Your task to perform on an android device: open app "Messenger Lite" (install if not already installed) Image 0: 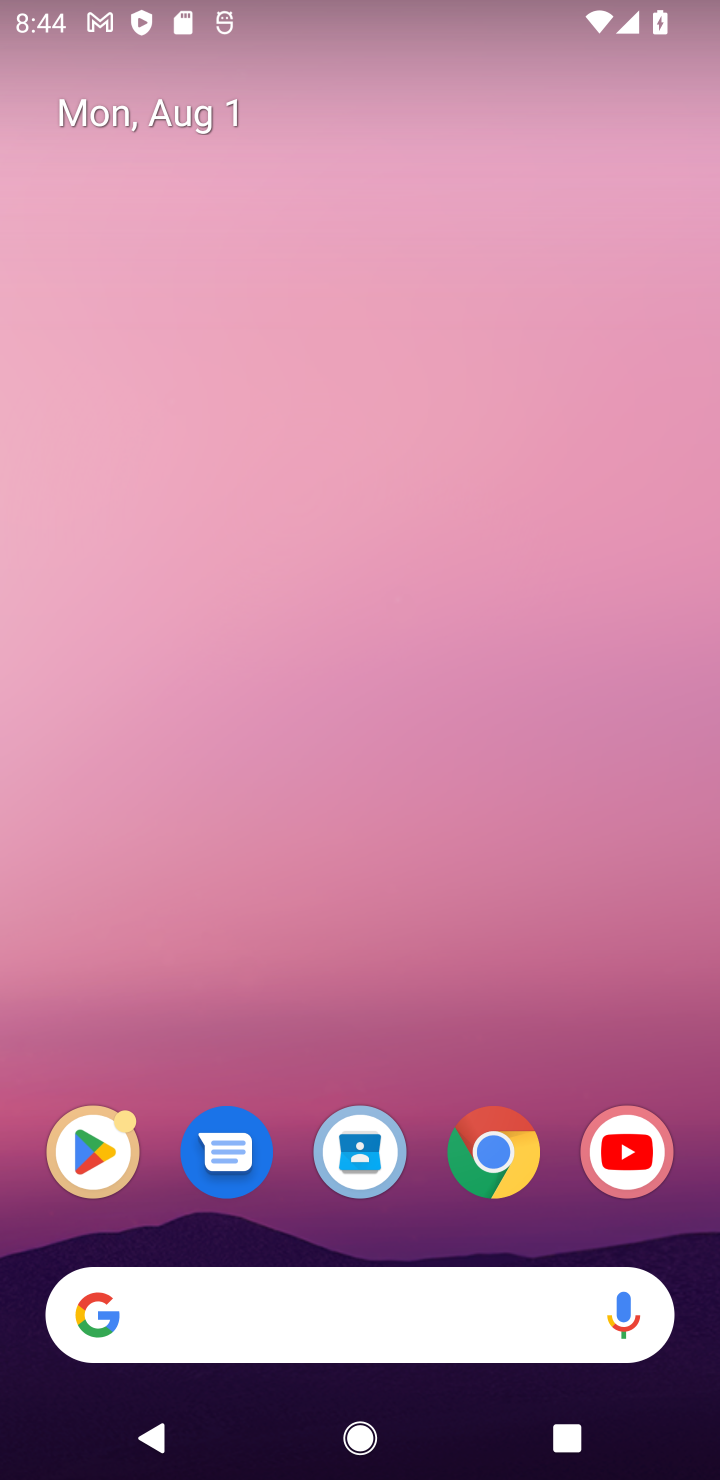
Step 0: drag from (372, 1250) to (286, 243)
Your task to perform on an android device: open app "Messenger Lite" (install if not already installed) Image 1: 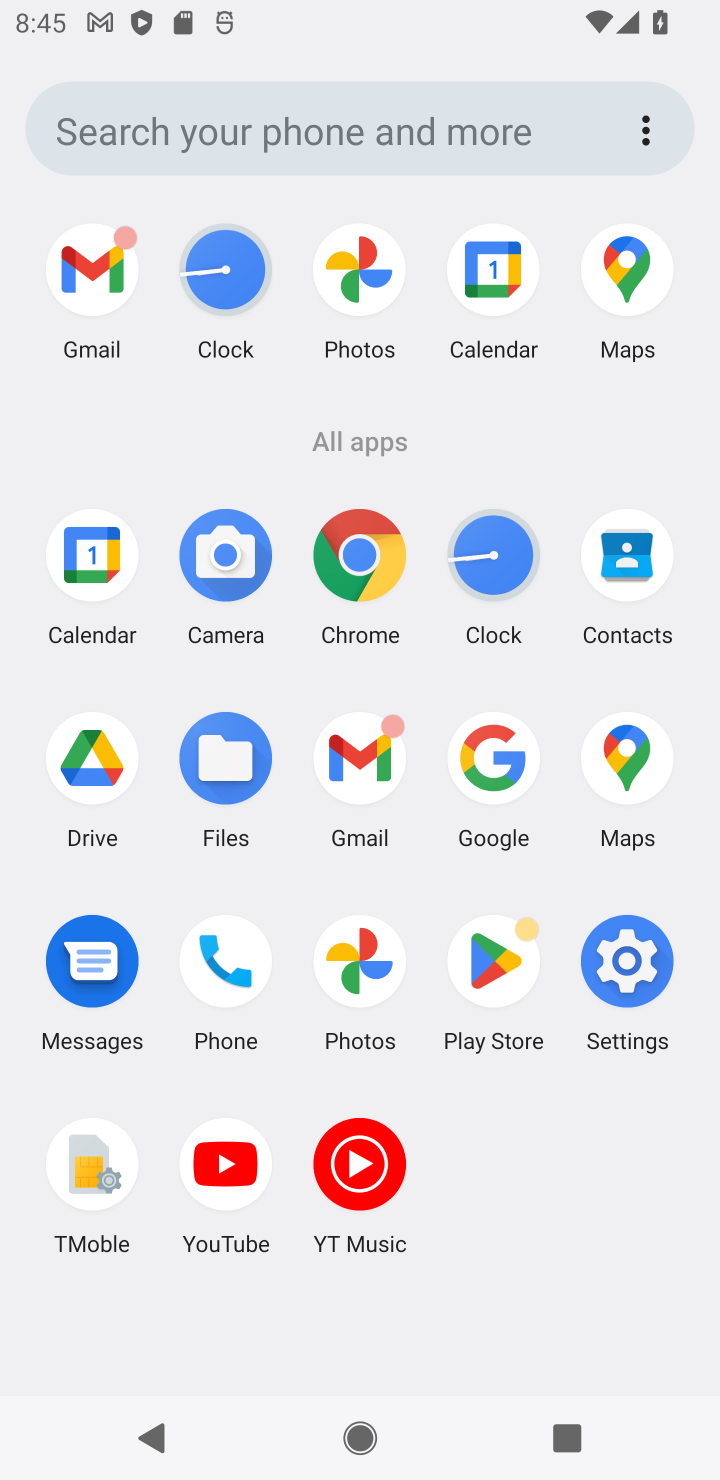
Step 1: click (477, 964)
Your task to perform on an android device: open app "Messenger Lite" (install if not already installed) Image 2: 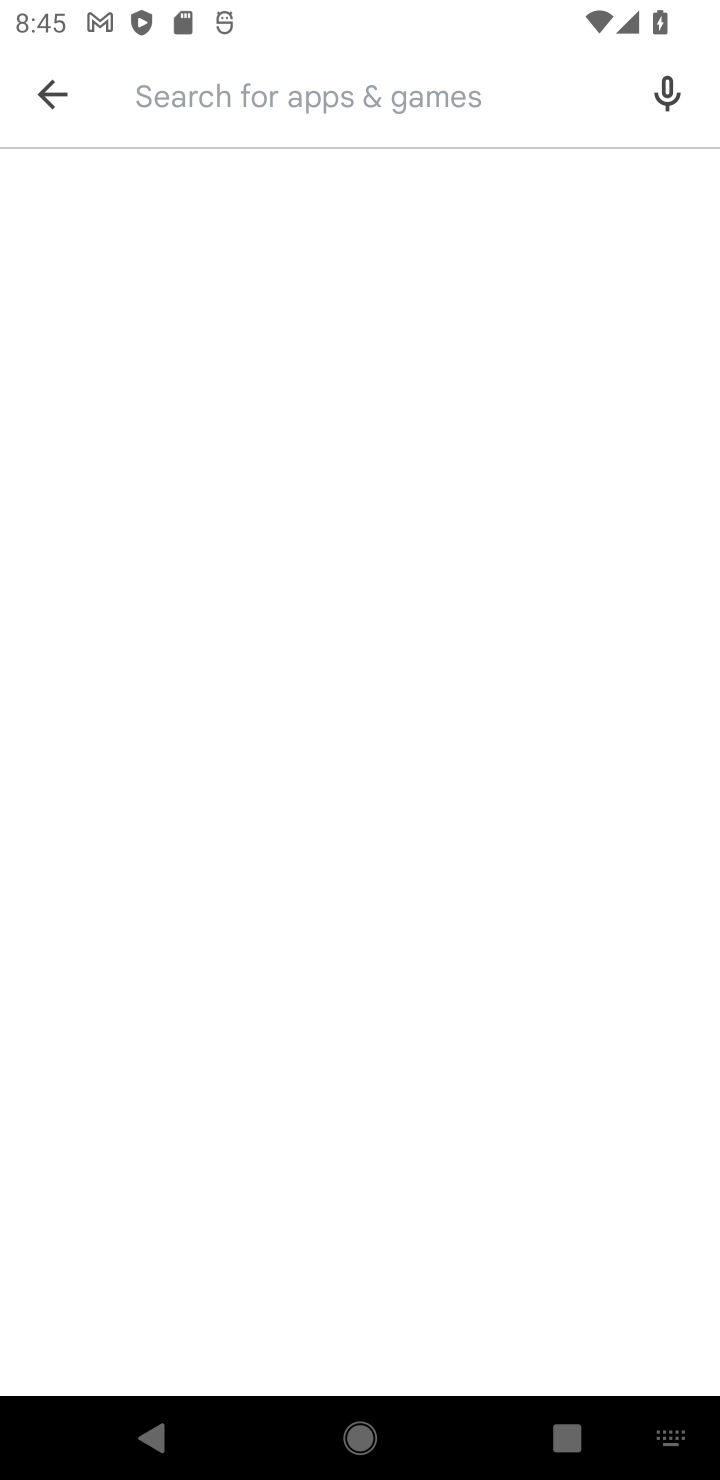
Step 2: type "Messenger Lite"
Your task to perform on an android device: open app "Messenger Lite" (install if not already installed) Image 3: 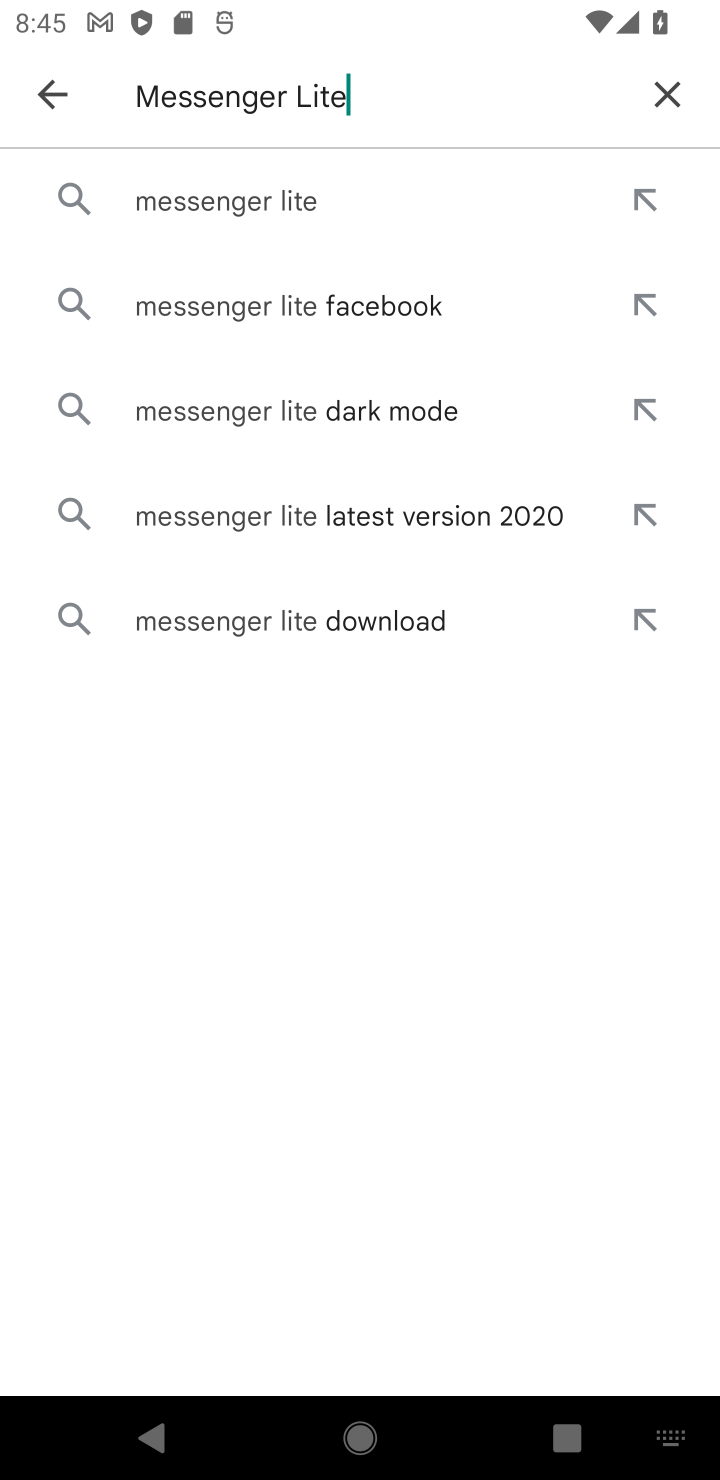
Step 3: click (245, 180)
Your task to perform on an android device: open app "Messenger Lite" (install if not already installed) Image 4: 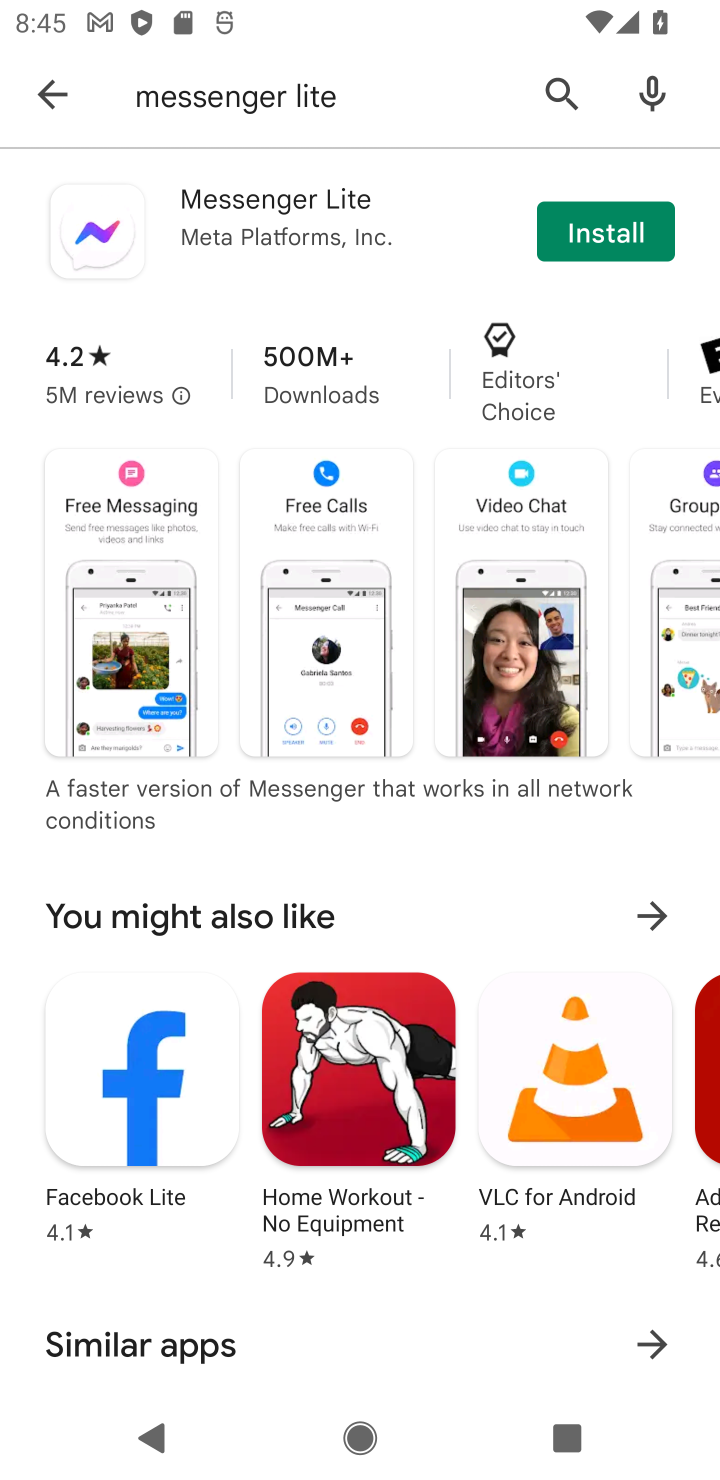
Step 4: click (540, 236)
Your task to perform on an android device: open app "Messenger Lite" (install if not already installed) Image 5: 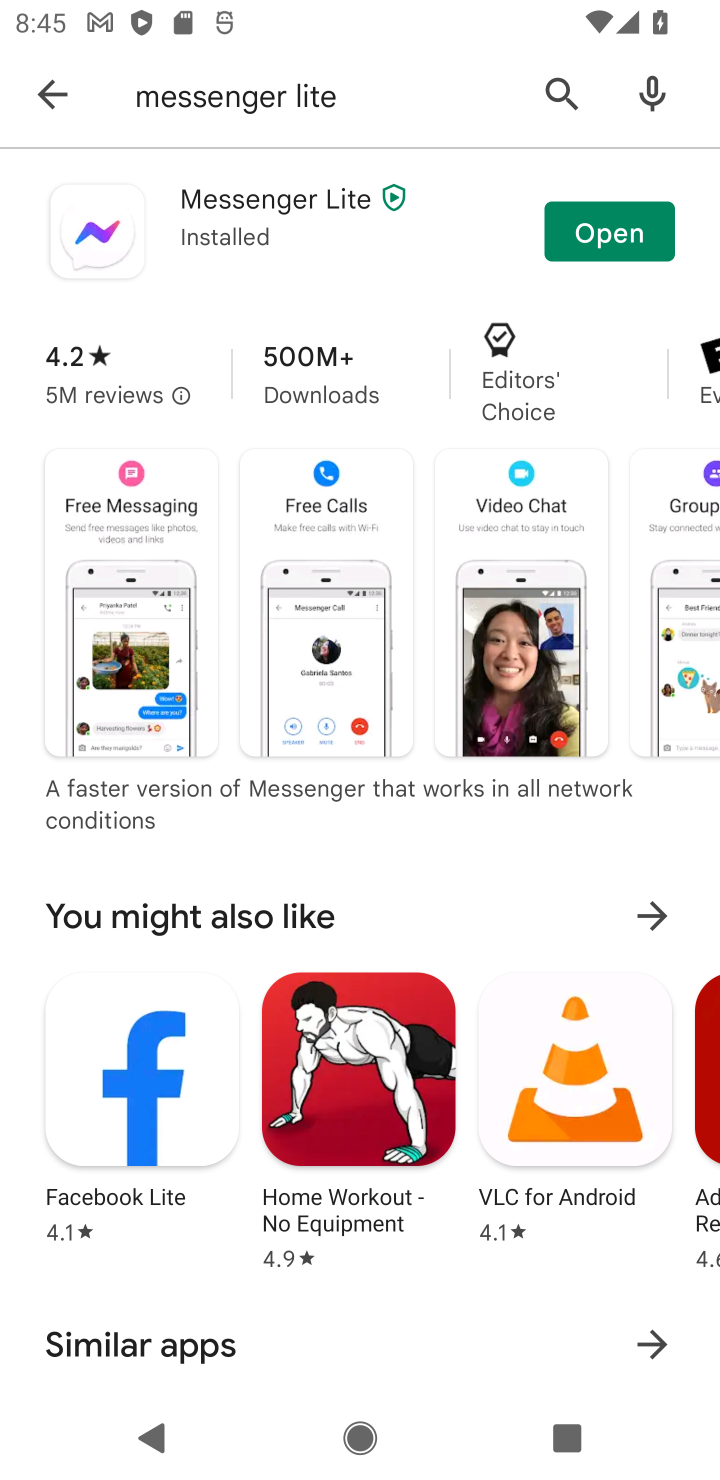
Step 5: click (611, 224)
Your task to perform on an android device: open app "Messenger Lite" (install if not already installed) Image 6: 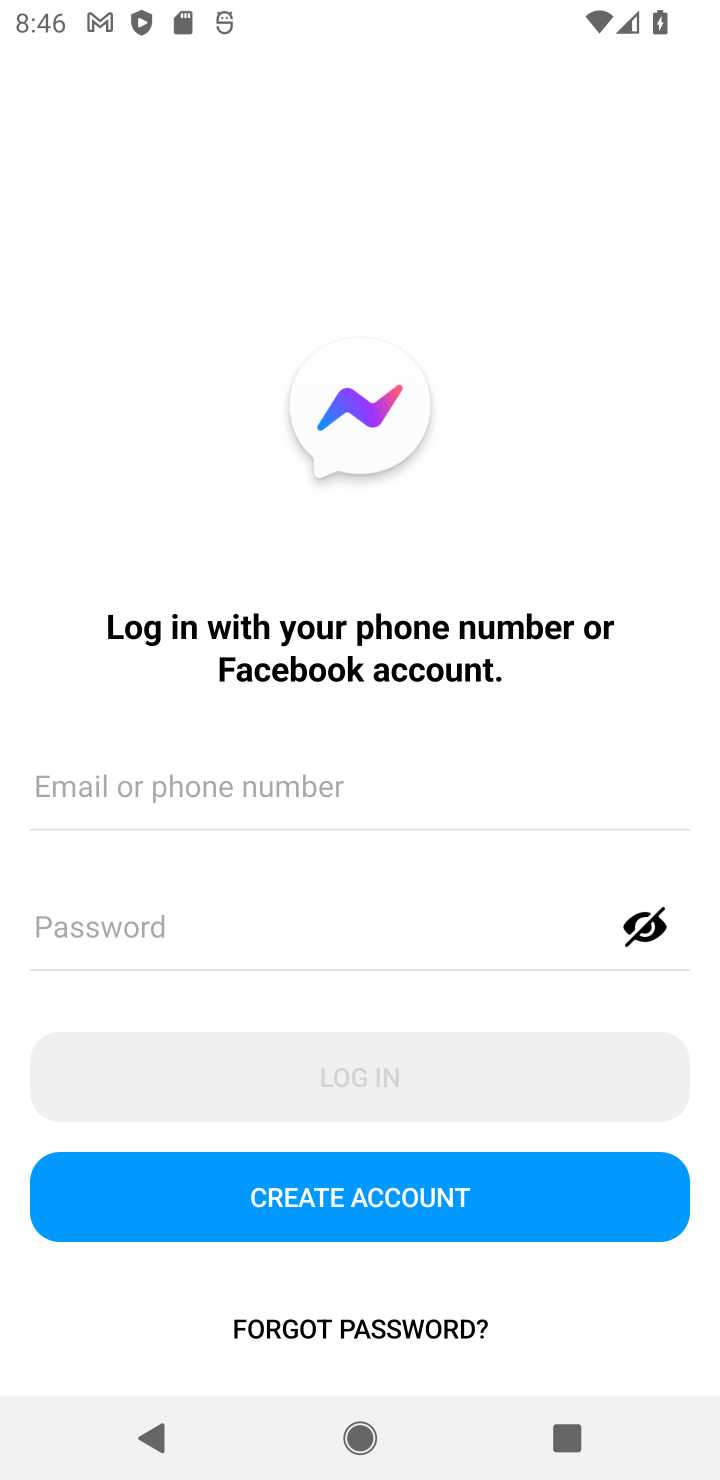
Step 6: task complete